Your task to perform on an android device: Go to Android settings Image 0: 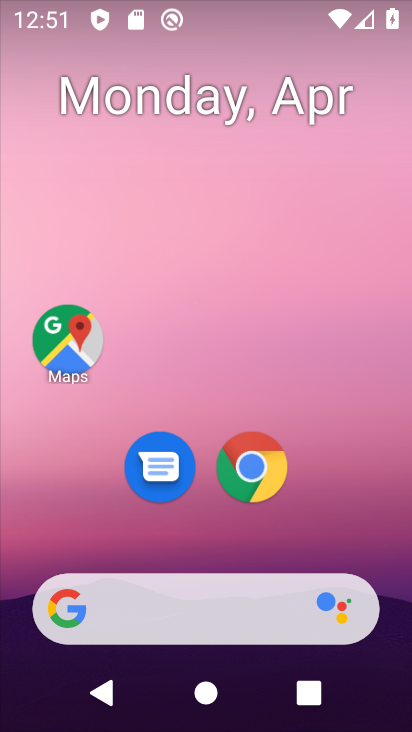
Step 0: drag from (216, 531) to (223, 158)
Your task to perform on an android device: Go to Android settings Image 1: 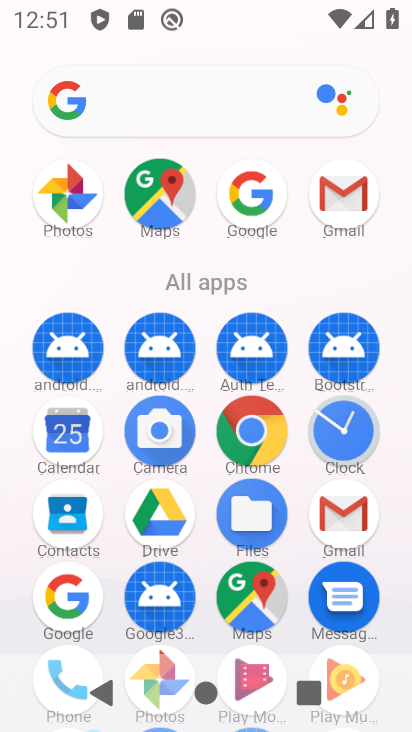
Step 1: drag from (207, 630) to (226, 351)
Your task to perform on an android device: Go to Android settings Image 2: 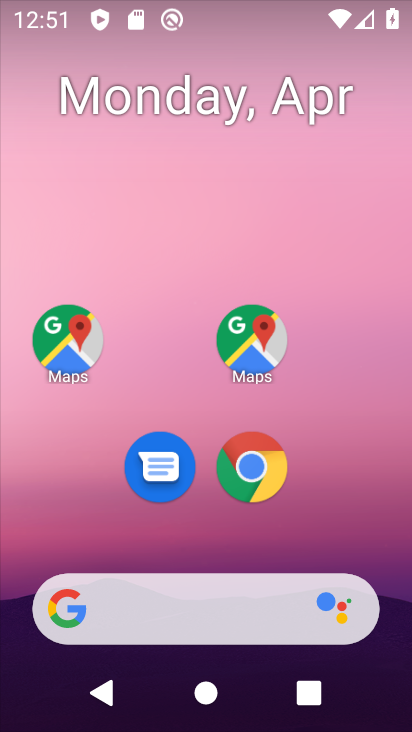
Step 2: drag from (211, 449) to (232, 191)
Your task to perform on an android device: Go to Android settings Image 3: 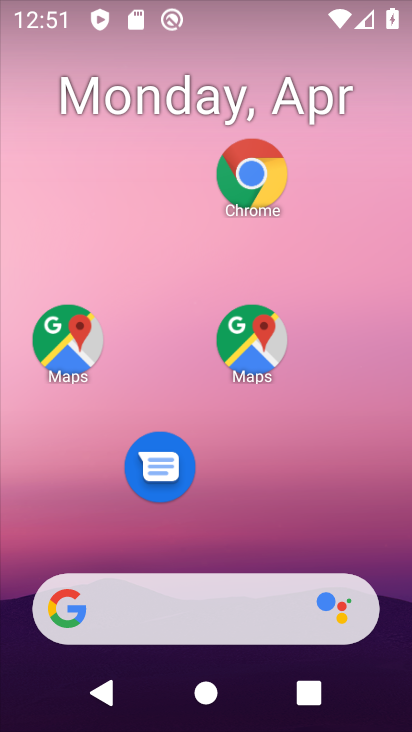
Step 3: drag from (242, 502) to (242, 75)
Your task to perform on an android device: Go to Android settings Image 4: 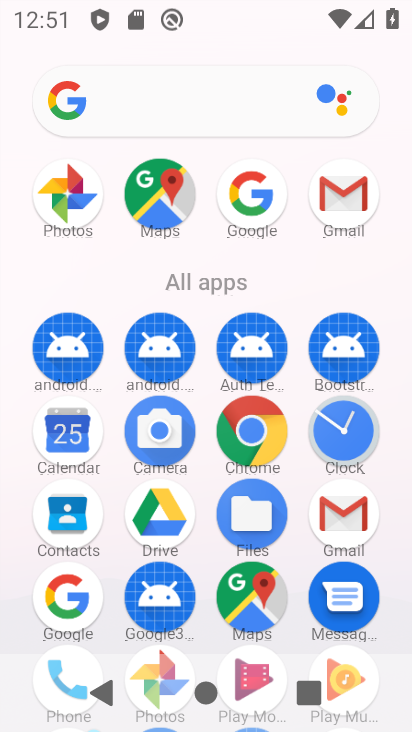
Step 4: drag from (205, 616) to (211, 344)
Your task to perform on an android device: Go to Android settings Image 5: 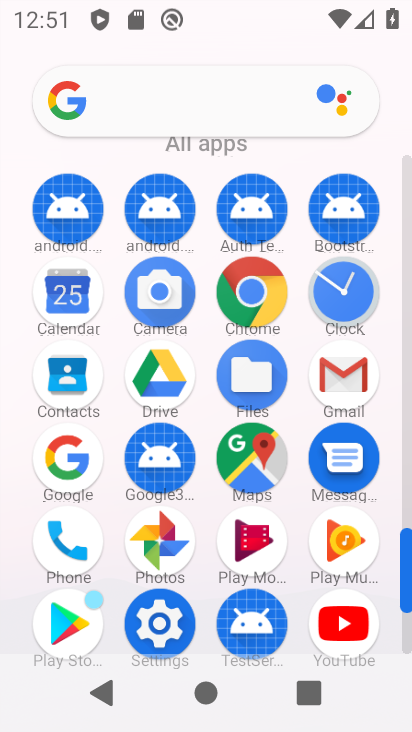
Step 5: click (160, 630)
Your task to perform on an android device: Go to Android settings Image 6: 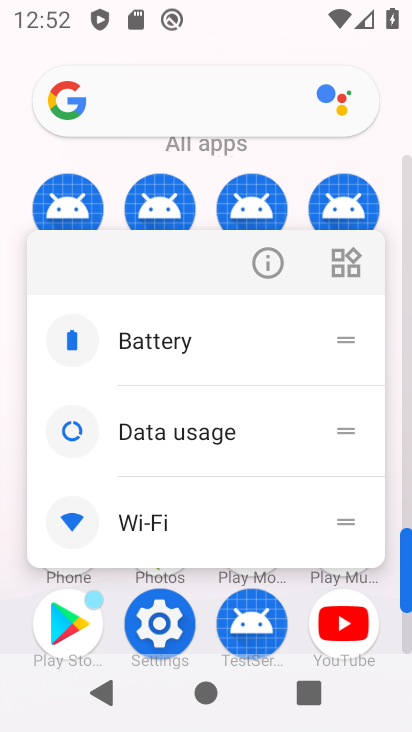
Step 6: click (322, 146)
Your task to perform on an android device: Go to Android settings Image 7: 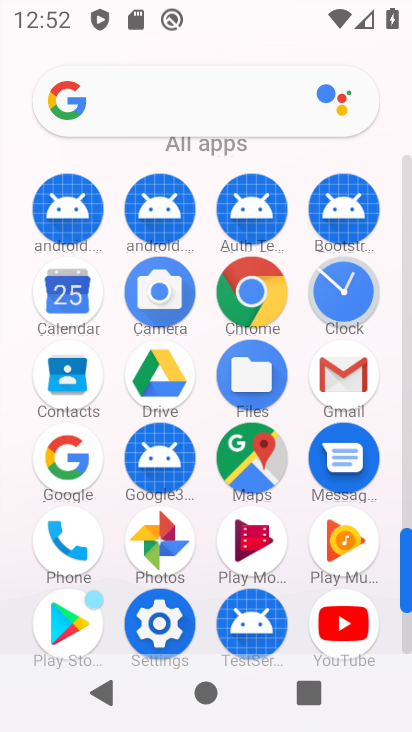
Step 7: click (156, 632)
Your task to perform on an android device: Go to Android settings Image 8: 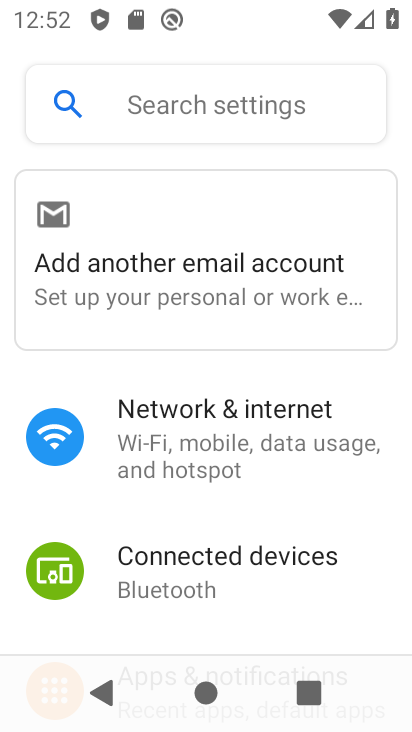
Step 8: task complete